Your task to perform on an android device: uninstall "Google Calendar" Image 0: 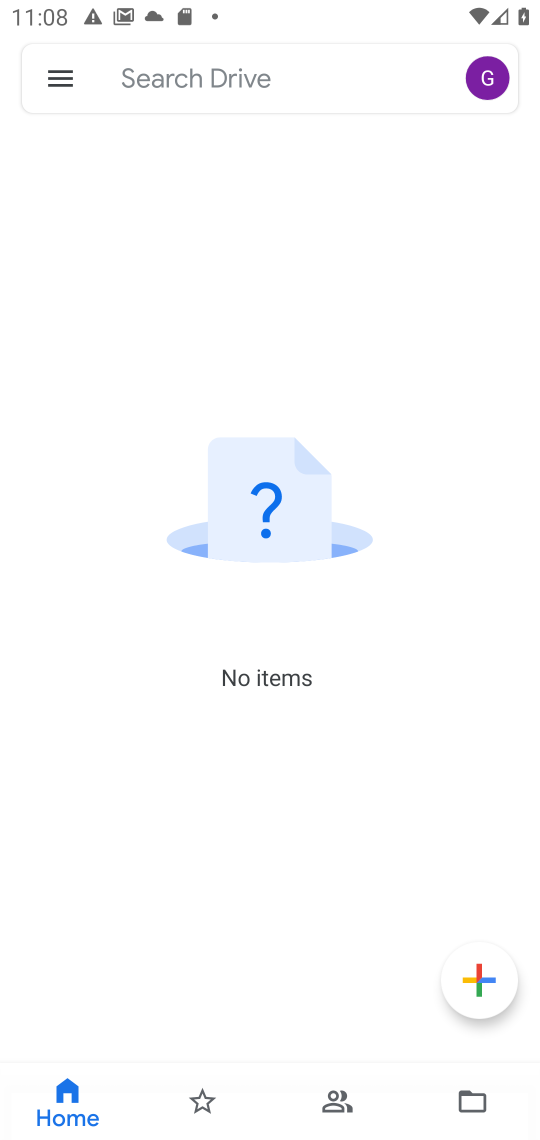
Step 0: press home button
Your task to perform on an android device: uninstall "Google Calendar" Image 1: 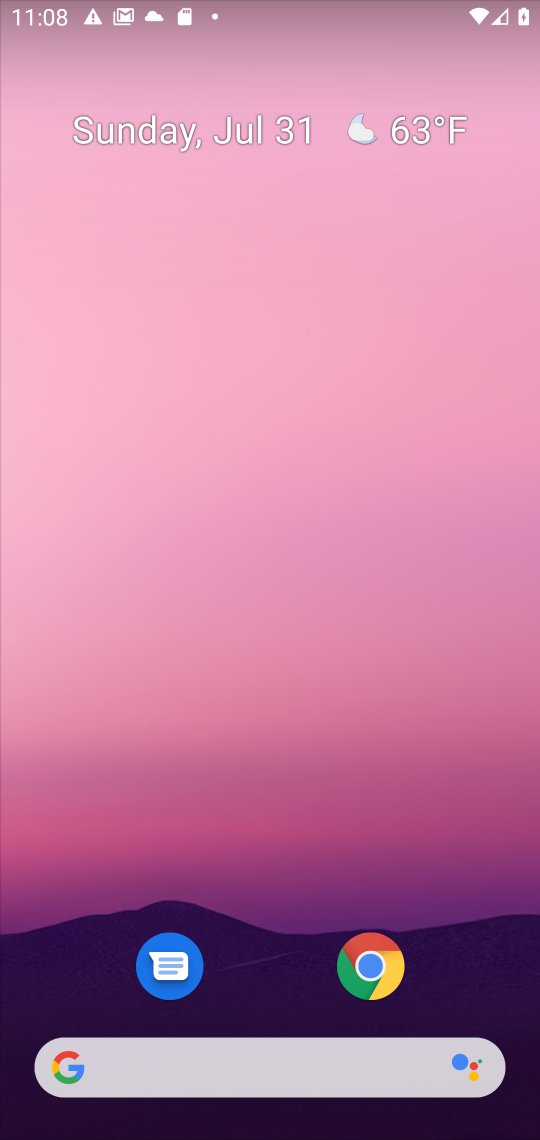
Step 1: drag from (234, 874) to (278, 3)
Your task to perform on an android device: uninstall "Google Calendar" Image 2: 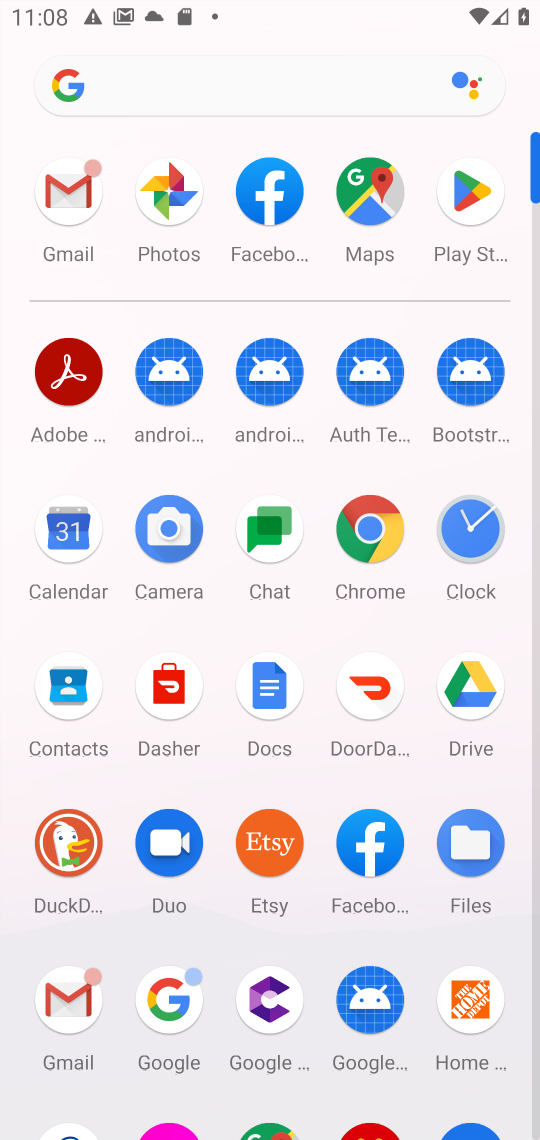
Step 2: click (464, 228)
Your task to perform on an android device: uninstall "Google Calendar" Image 3: 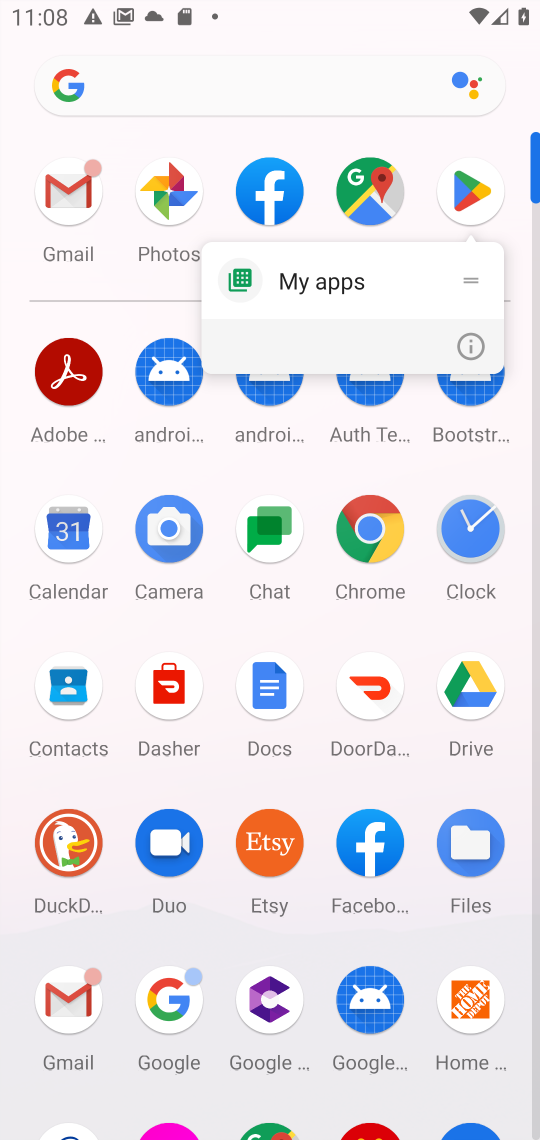
Step 3: click (465, 196)
Your task to perform on an android device: uninstall "Google Calendar" Image 4: 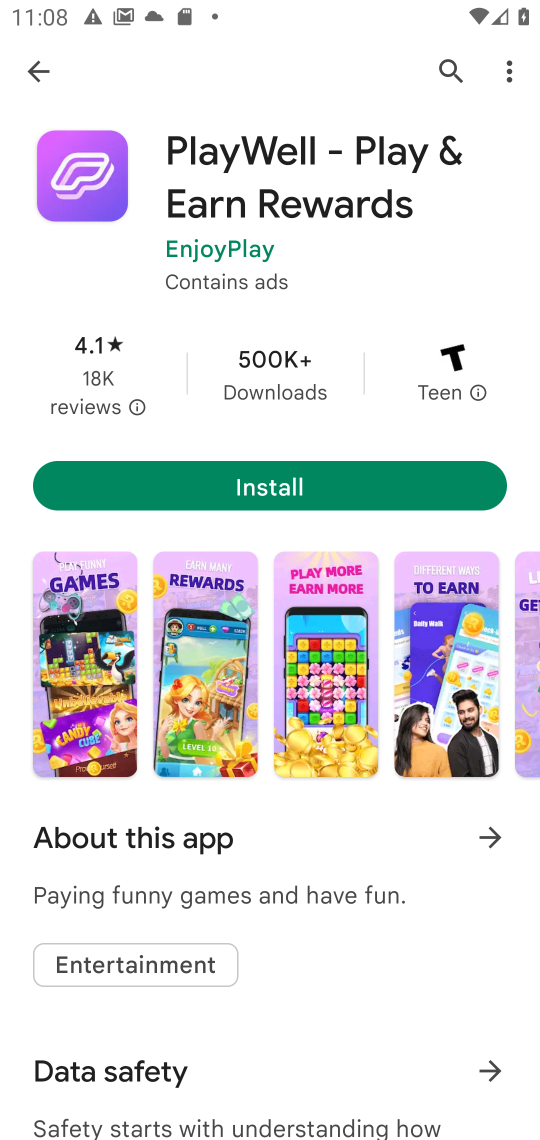
Step 4: click (37, 73)
Your task to perform on an android device: uninstall "Google Calendar" Image 5: 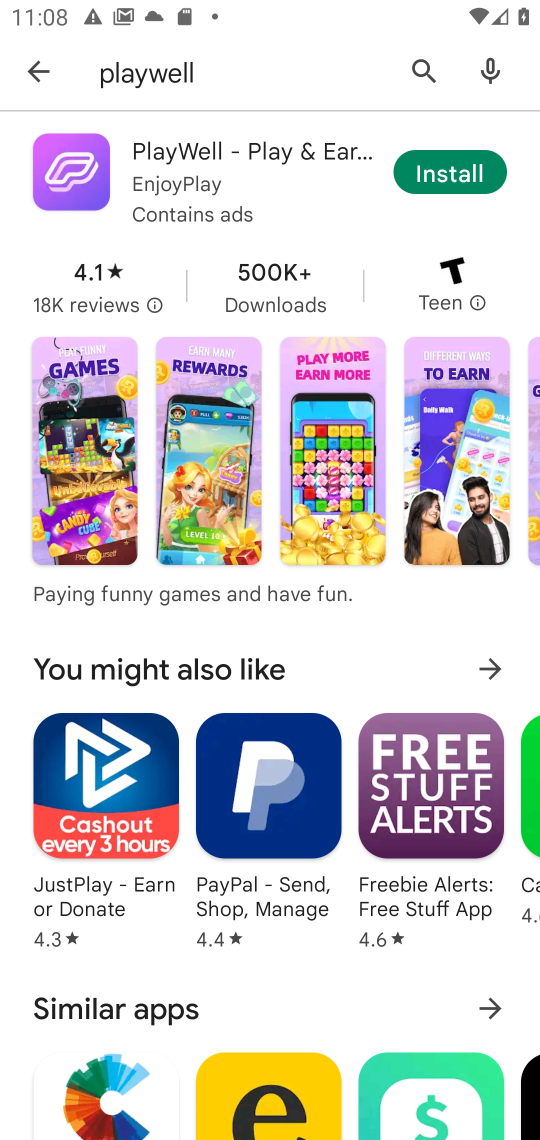
Step 5: click (203, 84)
Your task to perform on an android device: uninstall "Google Calendar" Image 6: 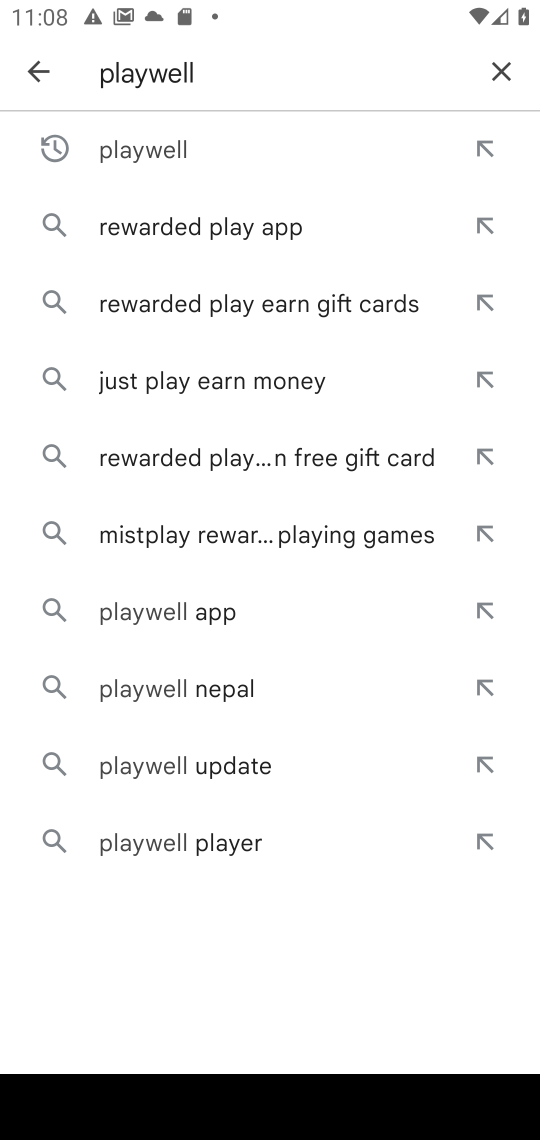
Step 6: click (493, 69)
Your task to perform on an android device: uninstall "Google Calendar" Image 7: 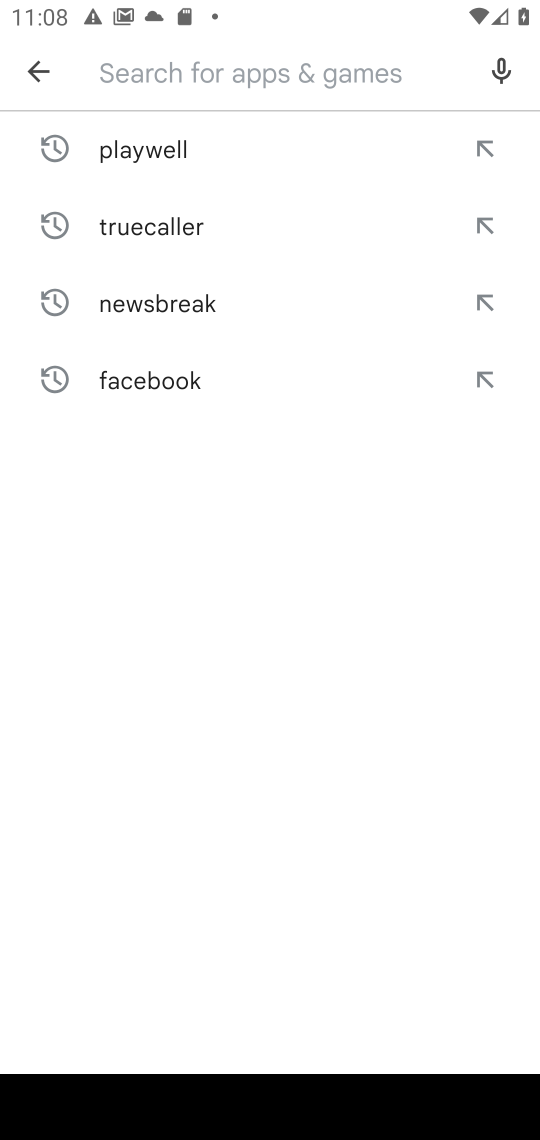
Step 7: type "Google calender"
Your task to perform on an android device: uninstall "Google Calendar" Image 8: 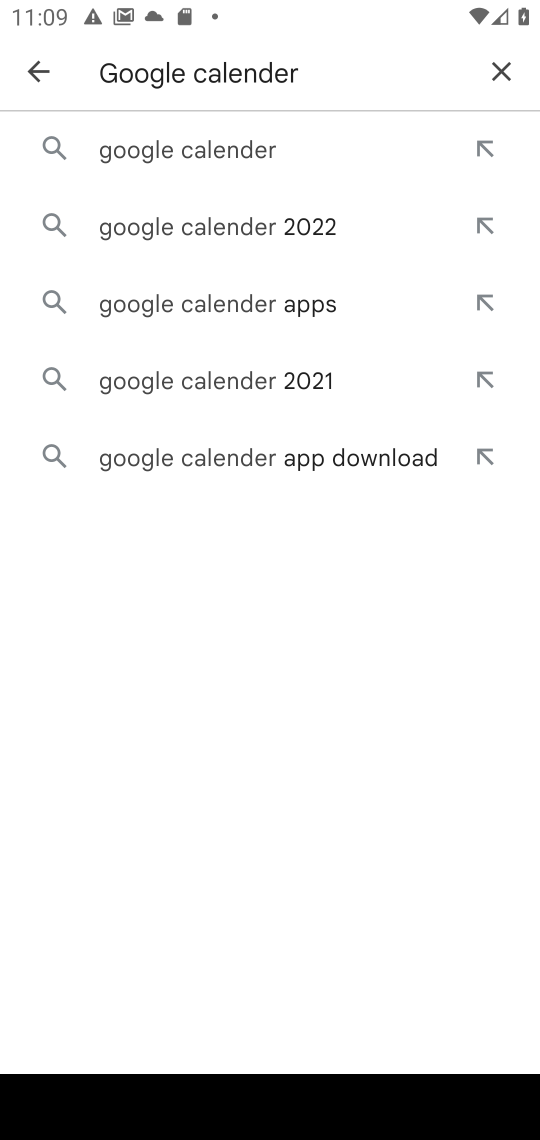
Step 8: click (246, 153)
Your task to perform on an android device: uninstall "Google Calendar" Image 9: 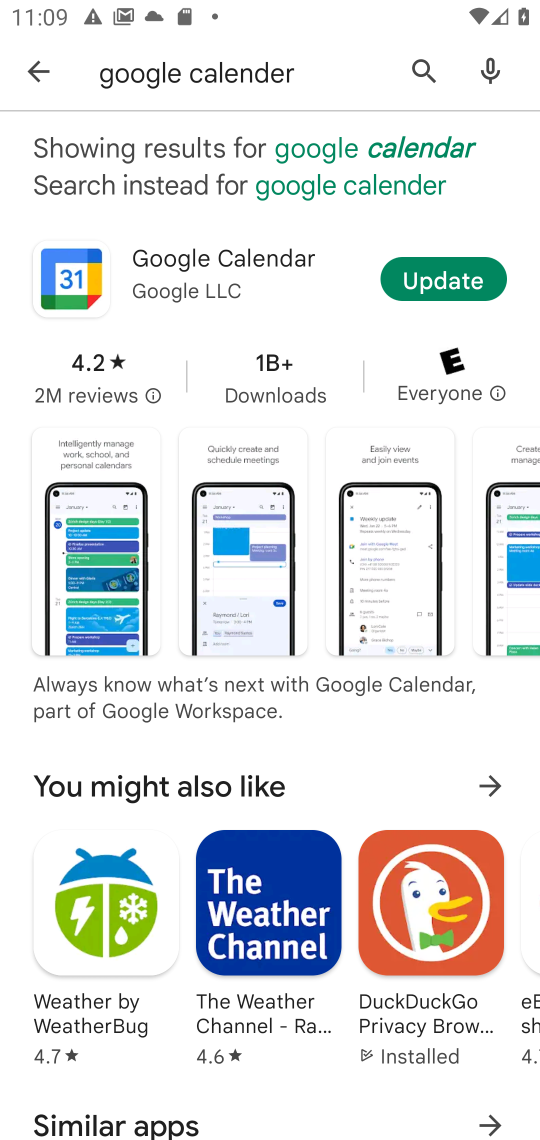
Step 9: click (72, 275)
Your task to perform on an android device: uninstall "Google Calendar" Image 10: 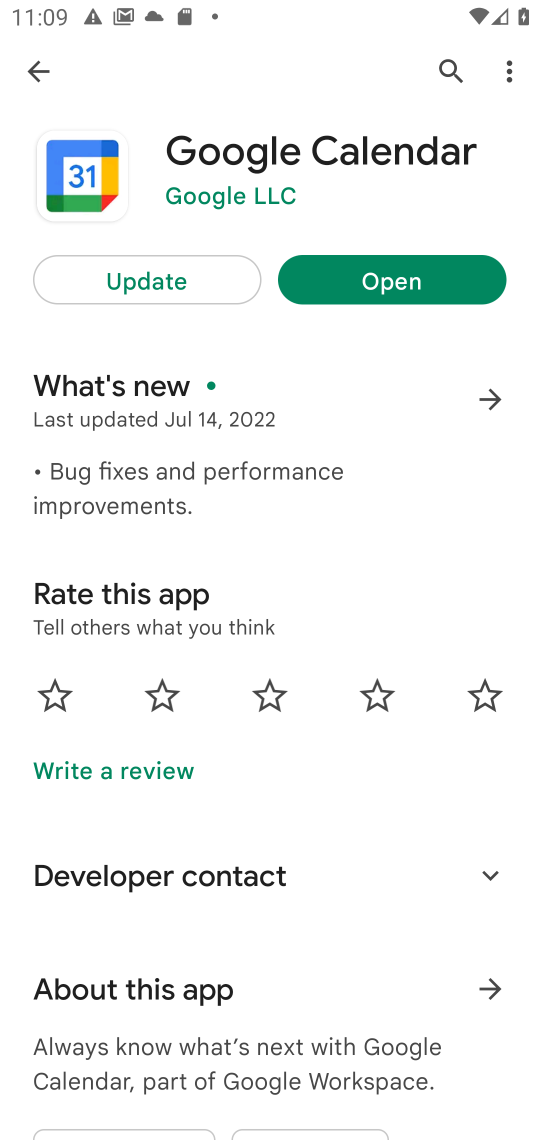
Step 10: task complete